Your task to perform on an android device: What's the weather going to be tomorrow? Image 0: 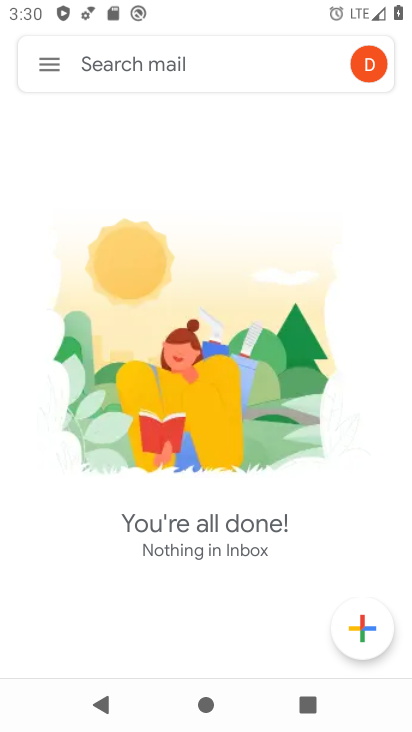
Step 0: press back button
Your task to perform on an android device: What's the weather going to be tomorrow? Image 1: 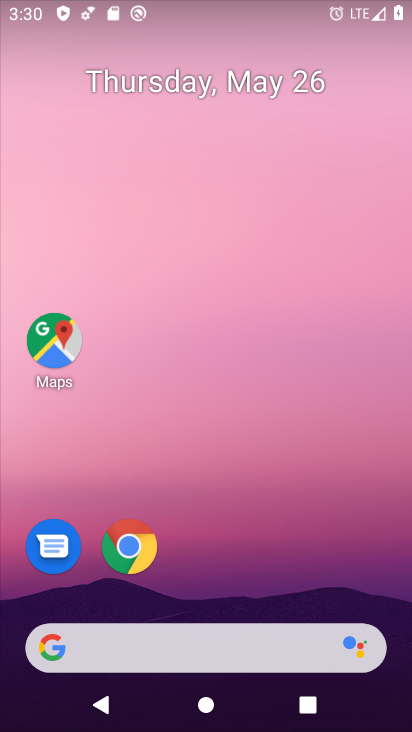
Step 1: drag from (197, 628) to (218, 86)
Your task to perform on an android device: What's the weather going to be tomorrow? Image 2: 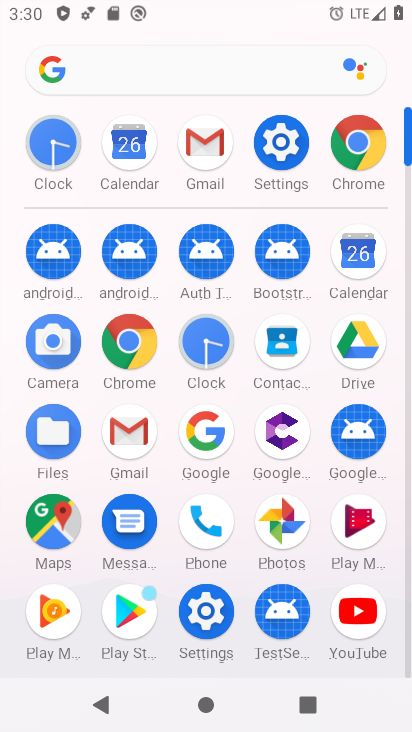
Step 2: click (146, 66)
Your task to perform on an android device: What's the weather going to be tomorrow? Image 3: 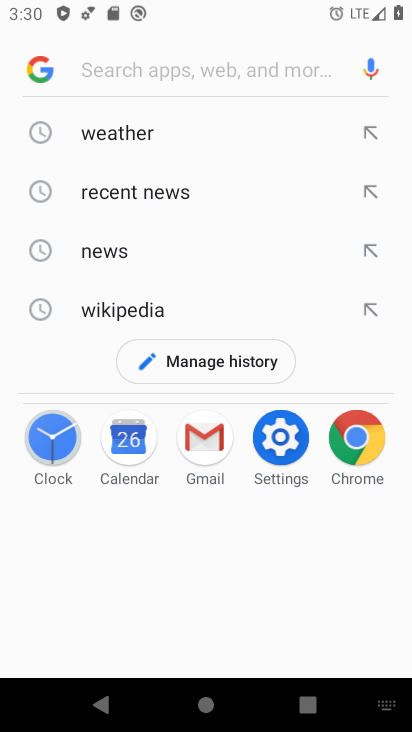
Step 3: click (136, 131)
Your task to perform on an android device: What's the weather going to be tomorrow? Image 4: 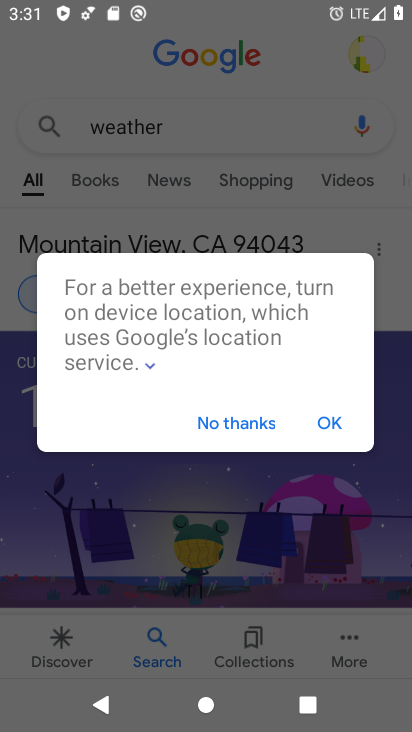
Step 4: click (311, 418)
Your task to perform on an android device: What's the weather going to be tomorrow? Image 5: 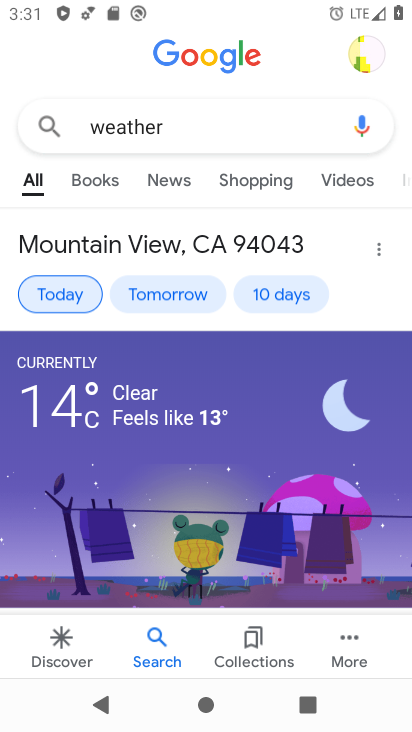
Step 5: click (177, 295)
Your task to perform on an android device: What's the weather going to be tomorrow? Image 6: 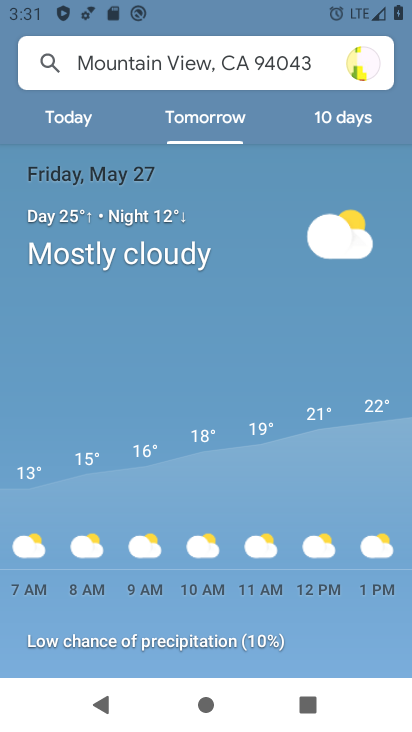
Step 6: task complete